Your task to perform on an android device: Open Google Chrome Image 0: 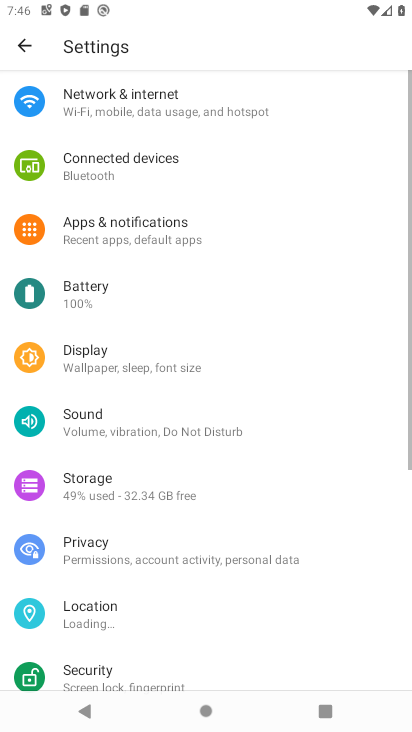
Step 0: press home button
Your task to perform on an android device: Open Google Chrome Image 1: 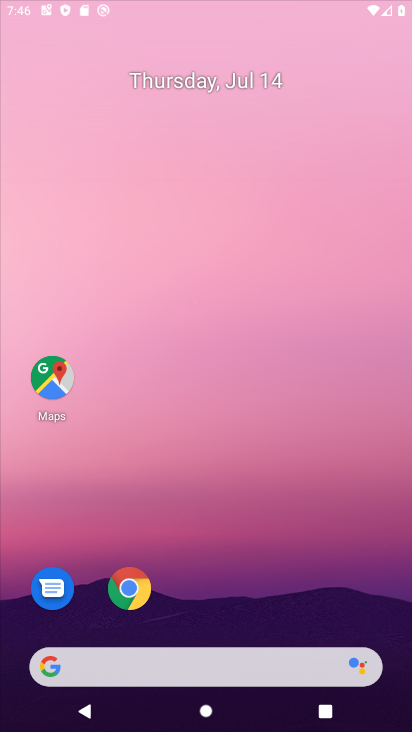
Step 1: drag from (396, 668) to (259, 37)
Your task to perform on an android device: Open Google Chrome Image 2: 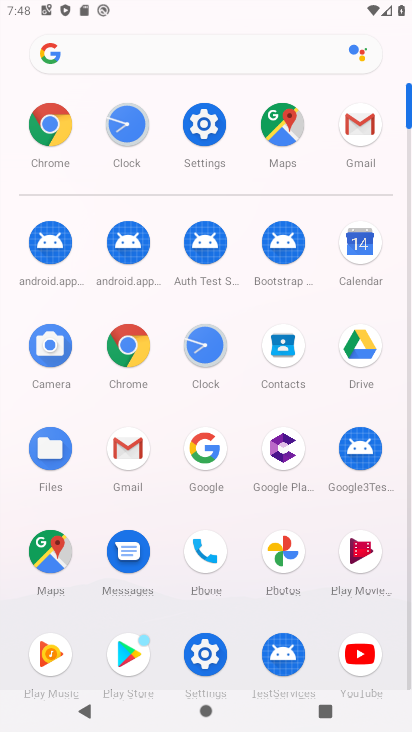
Step 2: click (127, 331)
Your task to perform on an android device: Open Google Chrome Image 3: 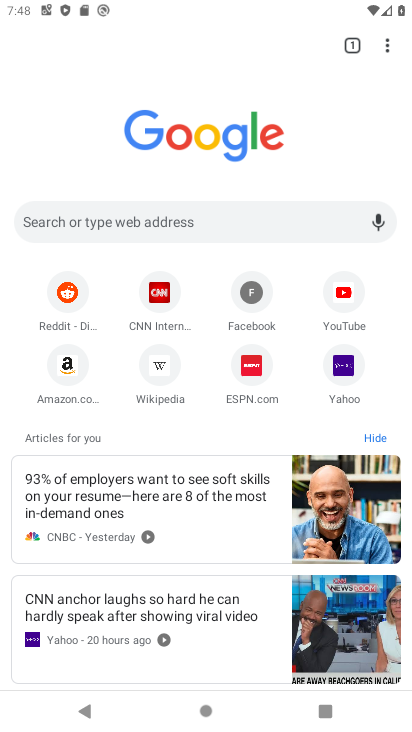
Step 3: task complete